Your task to perform on an android device: Open Chrome and go to settings Image 0: 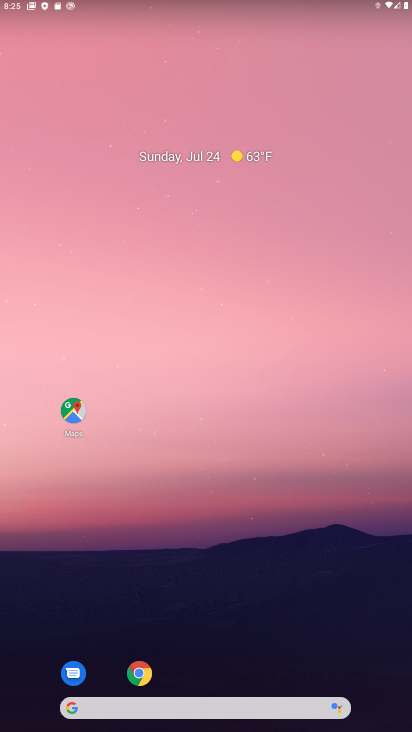
Step 0: drag from (222, 694) to (145, 198)
Your task to perform on an android device: Open Chrome and go to settings Image 1: 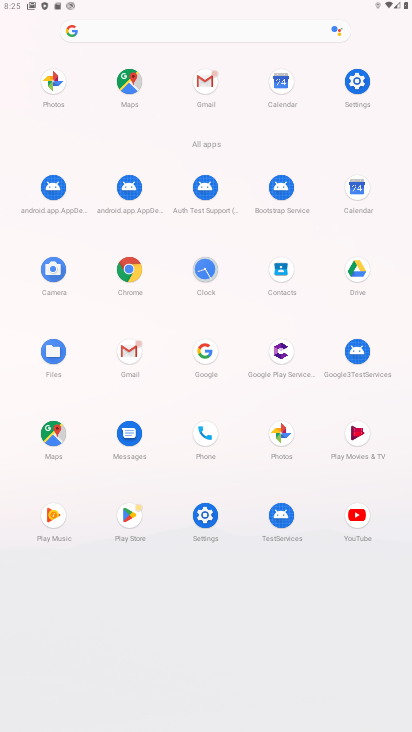
Step 1: click (137, 284)
Your task to perform on an android device: Open Chrome and go to settings Image 2: 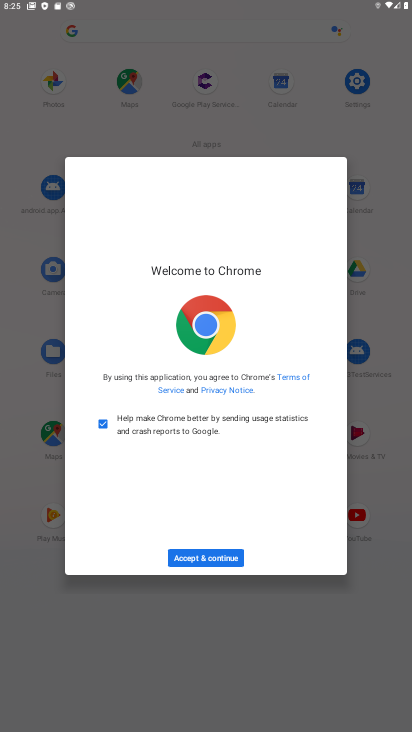
Step 2: click (190, 560)
Your task to perform on an android device: Open Chrome and go to settings Image 3: 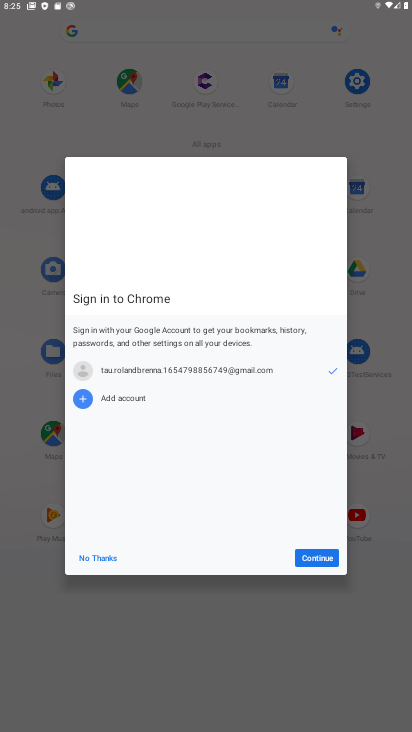
Step 3: click (314, 560)
Your task to perform on an android device: Open Chrome and go to settings Image 4: 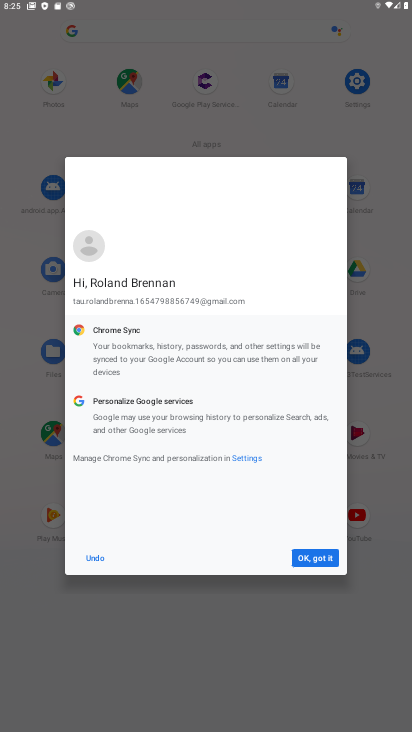
Step 4: click (315, 558)
Your task to perform on an android device: Open Chrome and go to settings Image 5: 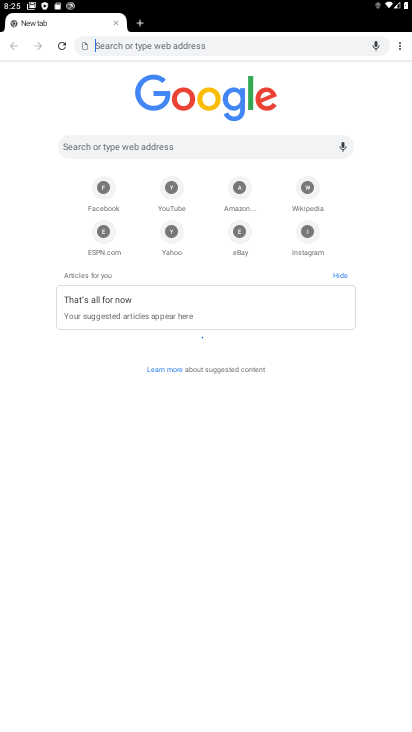
Step 5: click (398, 49)
Your task to perform on an android device: Open Chrome and go to settings Image 6: 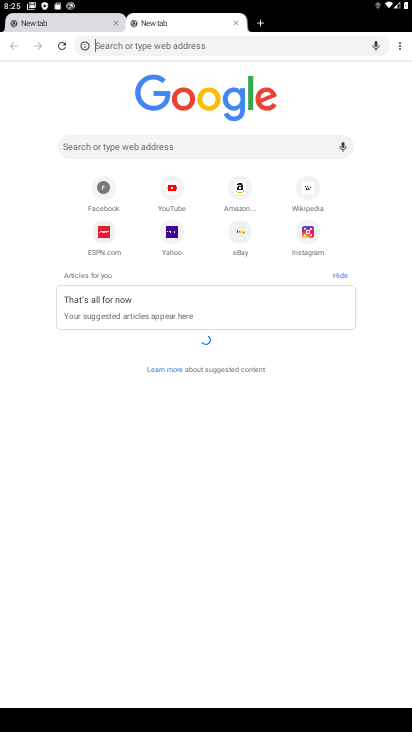
Step 6: task complete